Your task to perform on an android device: Is it going to rain today? Image 0: 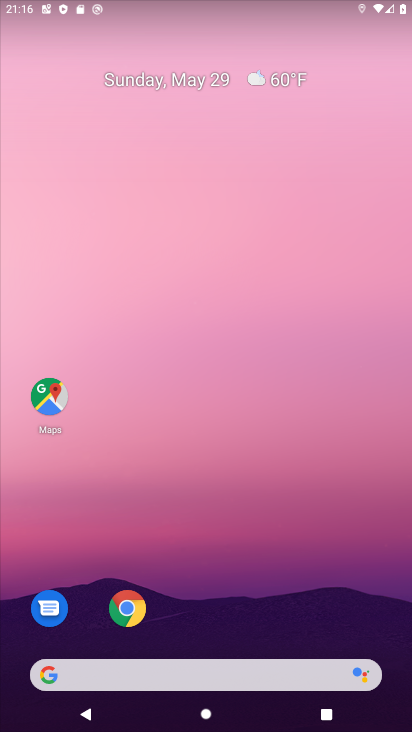
Step 0: click (252, 668)
Your task to perform on an android device: Is it going to rain today? Image 1: 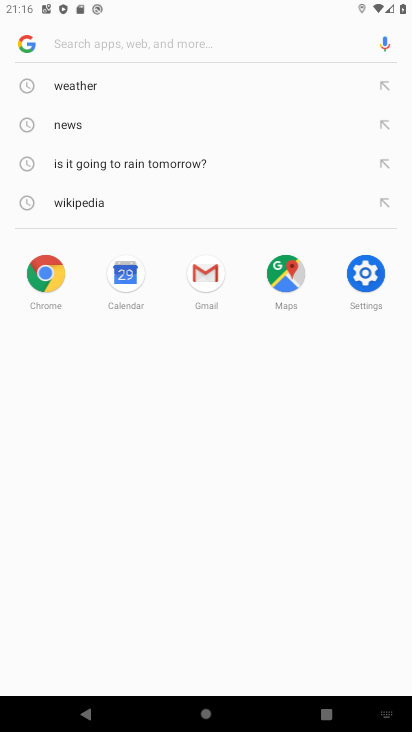
Step 1: click (265, 43)
Your task to perform on an android device: Is it going to rain today? Image 2: 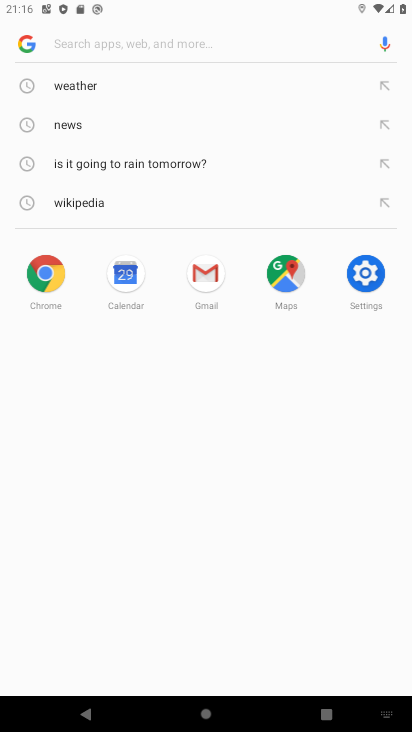
Step 2: type "weather"
Your task to perform on an android device: Is it going to rain today? Image 3: 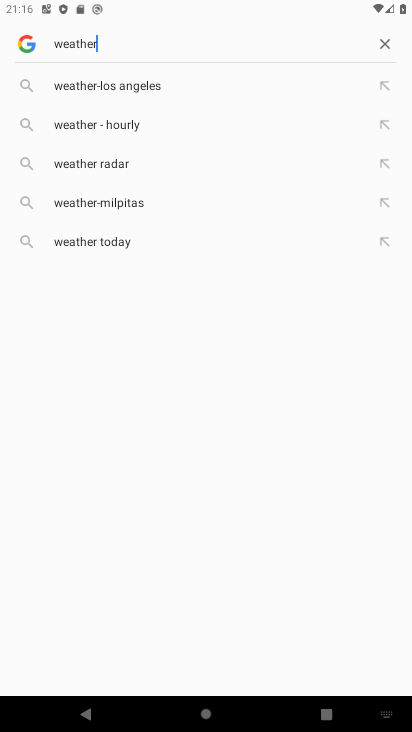
Step 3: click (129, 248)
Your task to perform on an android device: Is it going to rain today? Image 4: 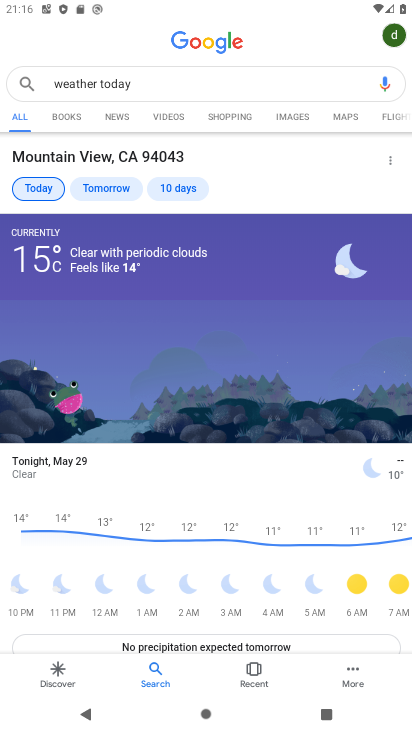
Step 4: task complete